Your task to perform on an android device: Open location settings Image 0: 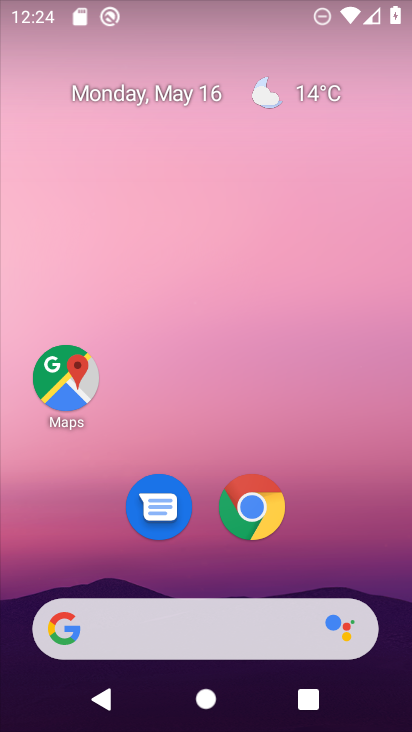
Step 0: drag from (307, 486) to (296, 42)
Your task to perform on an android device: Open location settings Image 1: 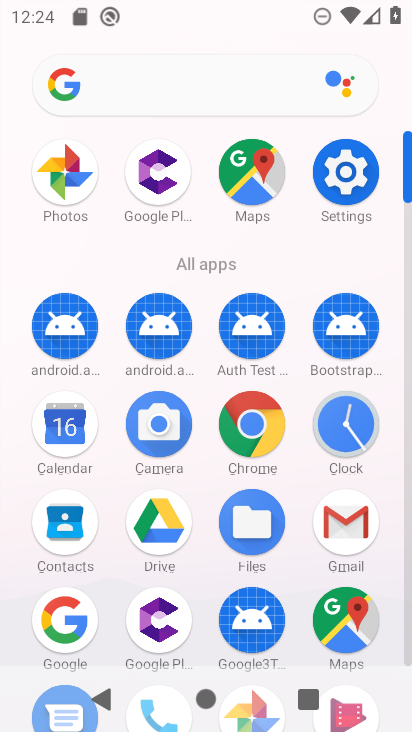
Step 1: click (369, 183)
Your task to perform on an android device: Open location settings Image 2: 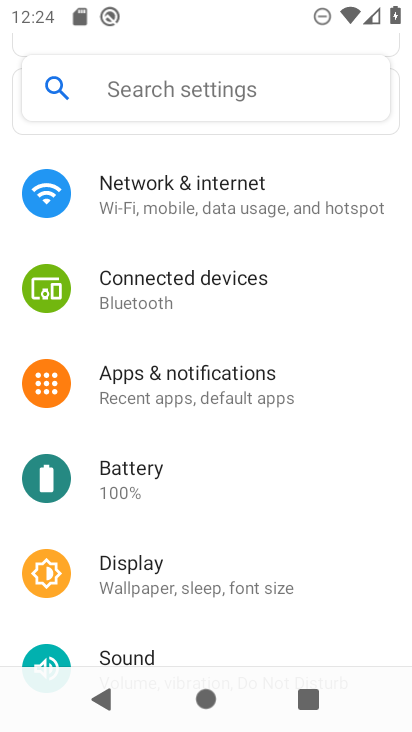
Step 2: drag from (197, 592) to (206, 283)
Your task to perform on an android device: Open location settings Image 3: 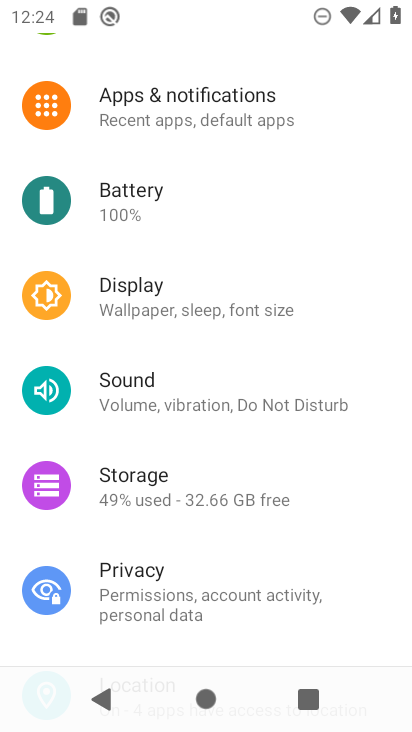
Step 3: drag from (182, 526) to (217, 278)
Your task to perform on an android device: Open location settings Image 4: 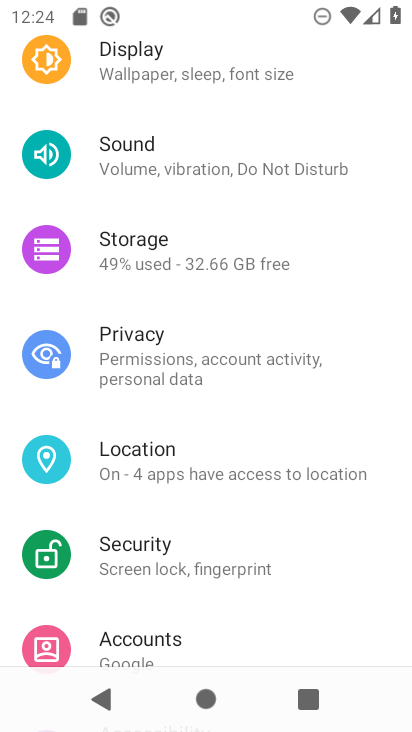
Step 4: click (173, 461)
Your task to perform on an android device: Open location settings Image 5: 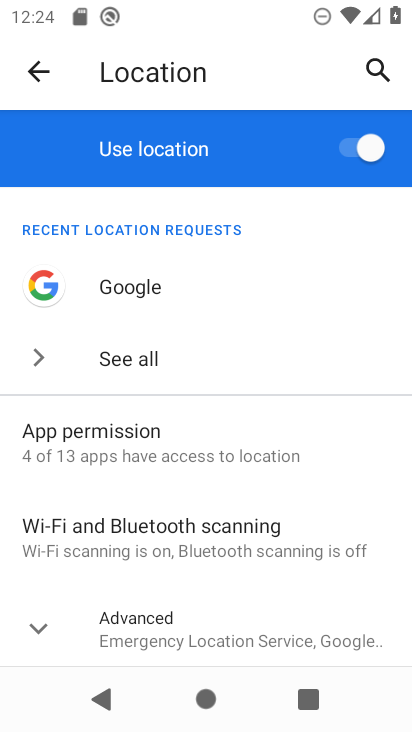
Step 5: task complete